Your task to perform on an android device: Search for Mexican restaurants on Maps Image 0: 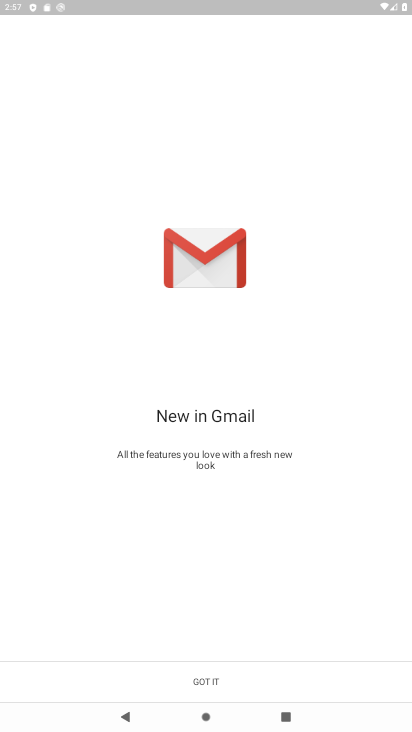
Step 0: press home button
Your task to perform on an android device: Search for Mexican restaurants on Maps Image 1: 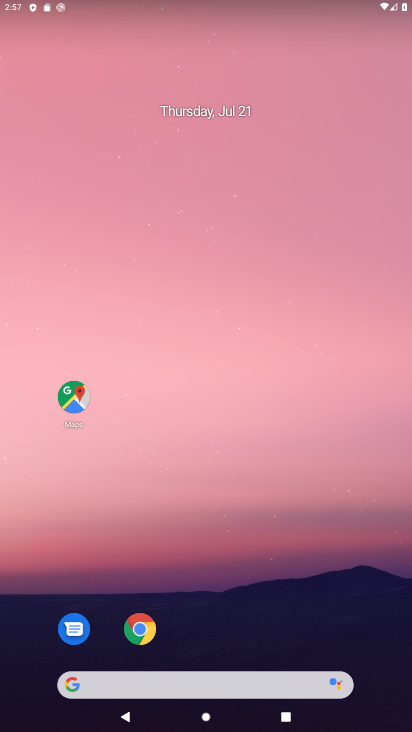
Step 1: click (80, 405)
Your task to perform on an android device: Search for Mexican restaurants on Maps Image 2: 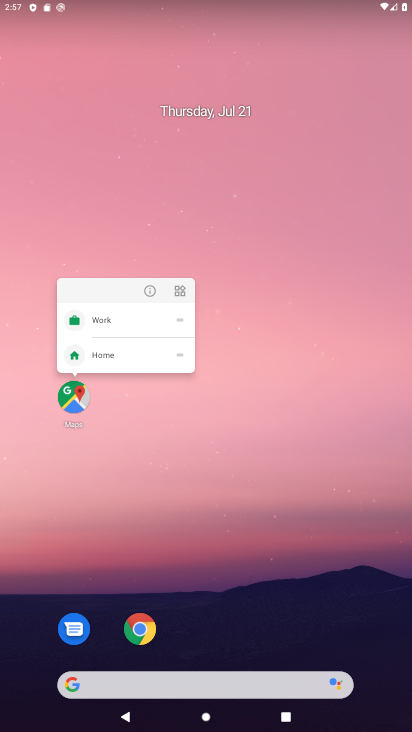
Step 2: click (80, 405)
Your task to perform on an android device: Search for Mexican restaurants on Maps Image 3: 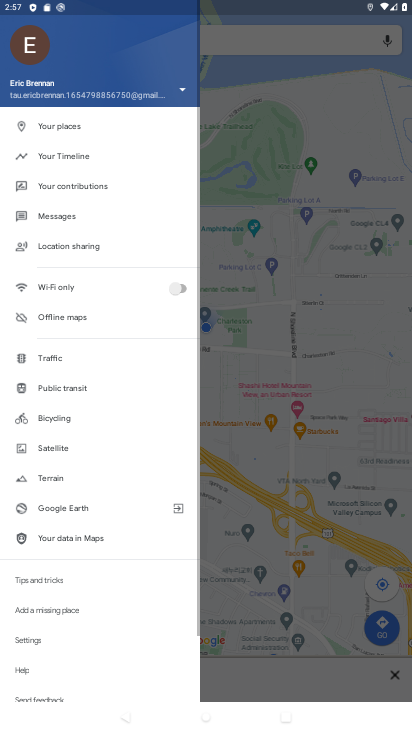
Step 3: click (80, 397)
Your task to perform on an android device: Search for Mexican restaurants on Maps Image 4: 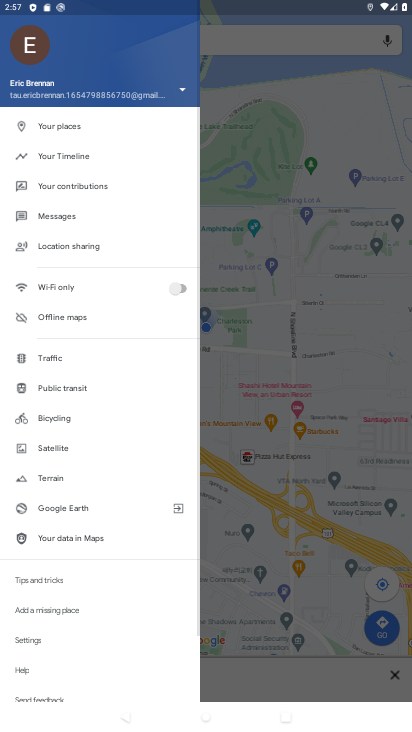
Step 4: drag from (282, 235) to (290, 191)
Your task to perform on an android device: Search for Mexican restaurants on Maps Image 5: 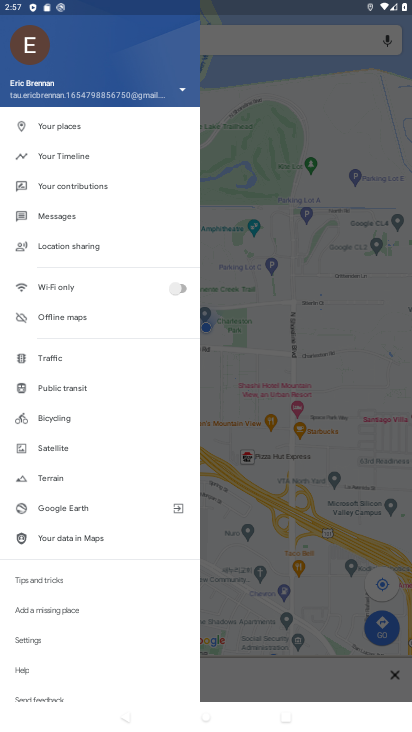
Step 5: click (269, 43)
Your task to perform on an android device: Search for Mexican restaurants on Maps Image 6: 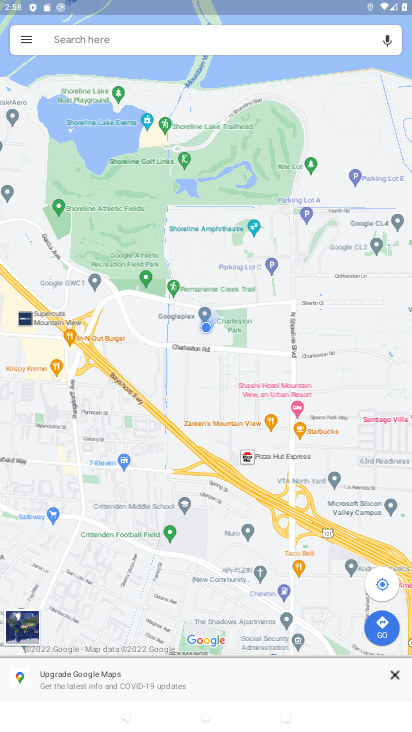
Step 6: click (269, 43)
Your task to perform on an android device: Search for Mexican restaurants on Maps Image 7: 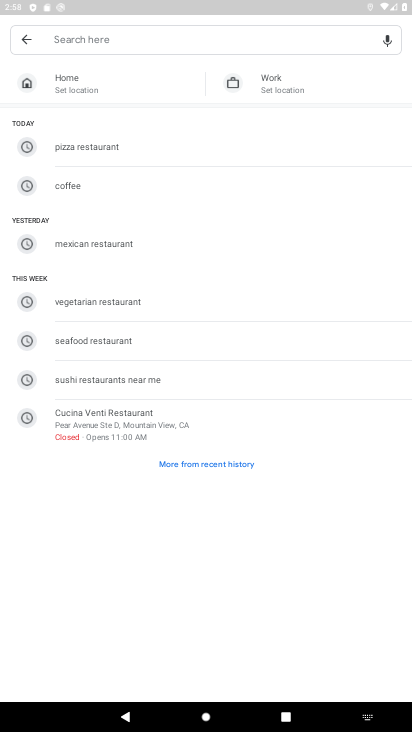
Step 7: type "mexican restaurants"
Your task to perform on an android device: Search for Mexican restaurants on Maps Image 8: 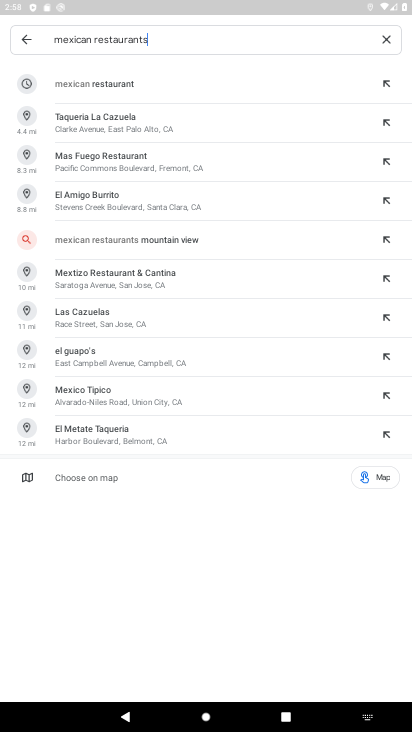
Step 8: click (150, 78)
Your task to perform on an android device: Search for Mexican restaurants on Maps Image 9: 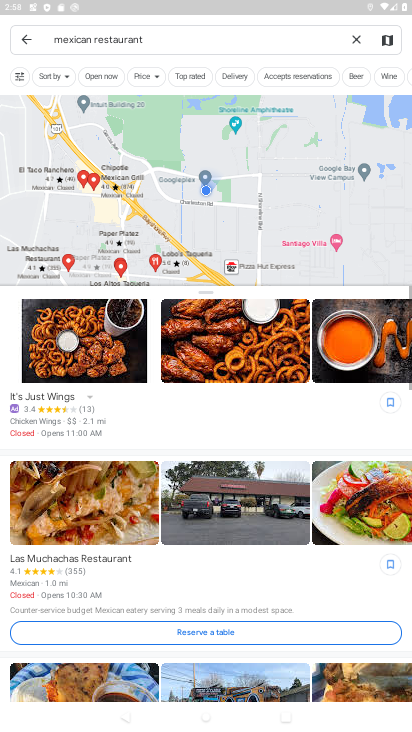
Step 9: task complete